Your task to perform on an android device: change the clock style Image 0: 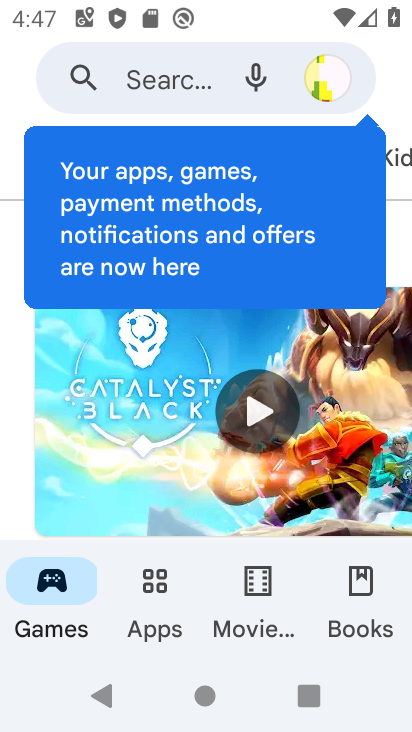
Step 0: press home button
Your task to perform on an android device: change the clock style Image 1: 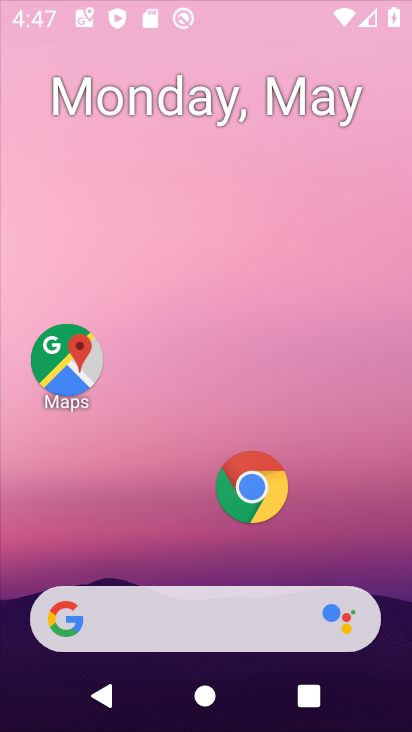
Step 1: drag from (154, 725) to (125, 22)
Your task to perform on an android device: change the clock style Image 2: 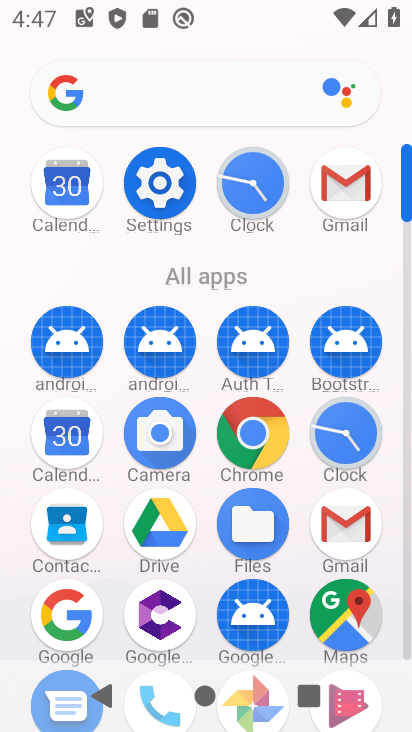
Step 2: click (254, 191)
Your task to perform on an android device: change the clock style Image 3: 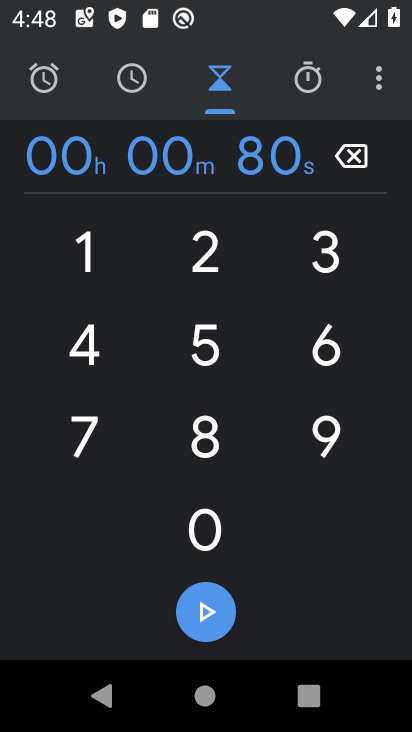
Step 3: click (382, 67)
Your task to perform on an android device: change the clock style Image 4: 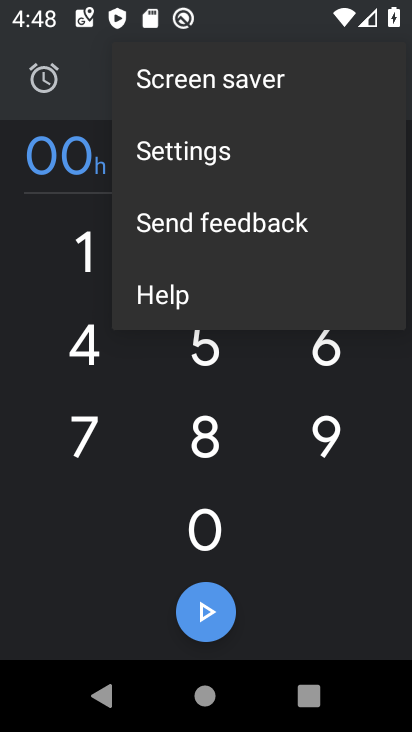
Step 4: click (226, 164)
Your task to perform on an android device: change the clock style Image 5: 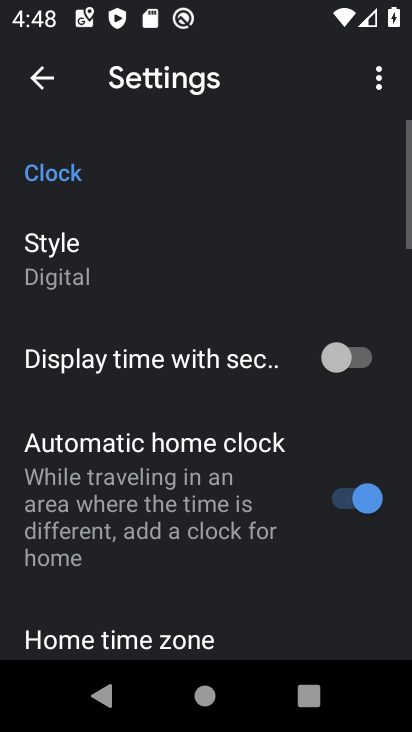
Step 5: click (114, 283)
Your task to perform on an android device: change the clock style Image 6: 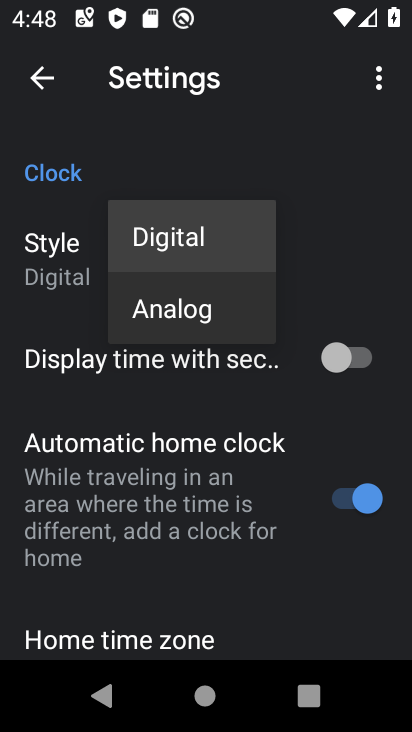
Step 6: click (167, 315)
Your task to perform on an android device: change the clock style Image 7: 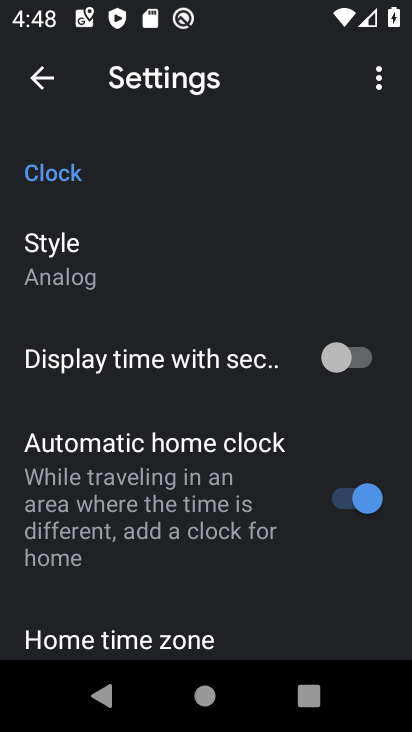
Step 7: task complete